Your task to perform on an android device: change the clock style Image 0: 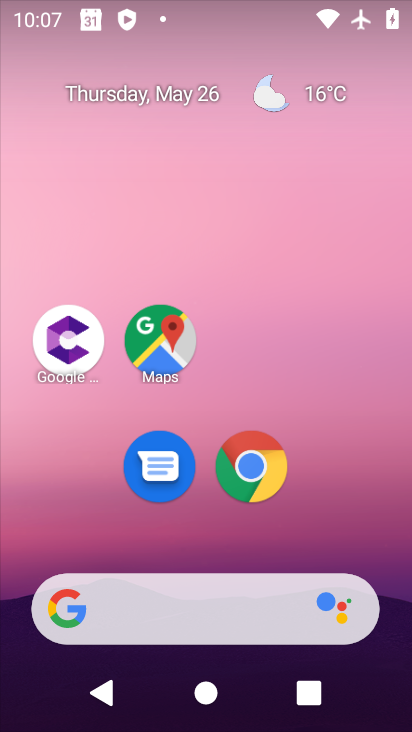
Step 0: drag from (349, 496) to (267, 192)
Your task to perform on an android device: change the clock style Image 1: 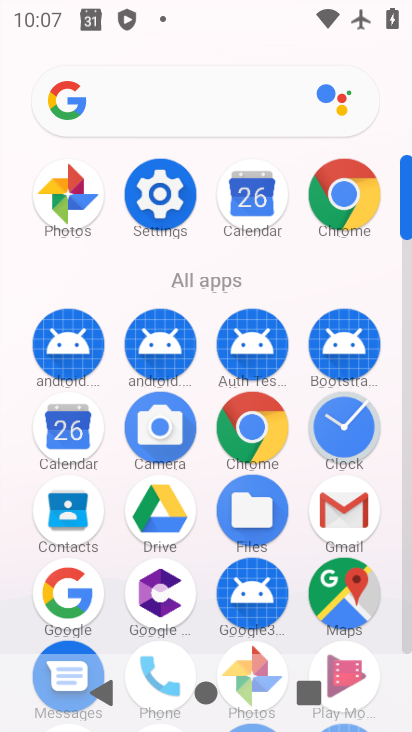
Step 1: click (335, 439)
Your task to perform on an android device: change the clock style Image 2: 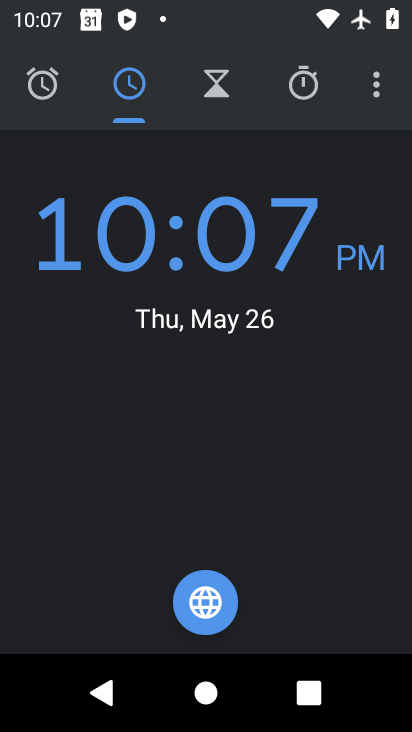
Step 2: click (379, 85)
Your task to perform on an android device: change the clock style Image 3: 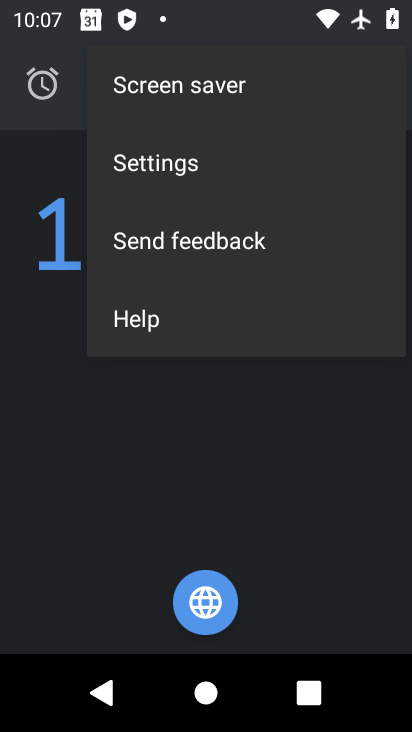
Step 3: click (188, 155)
Your task to perform on an android device: change the clock style Image 4: 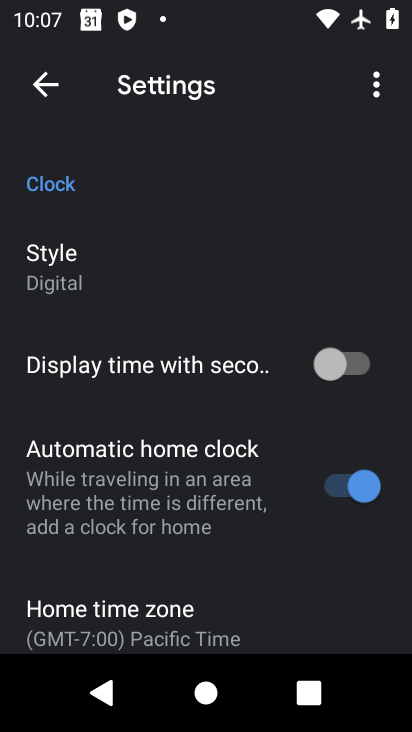
Step 4: click (59, 258)
Your task to perform on an android device: change the clock style Image 5: 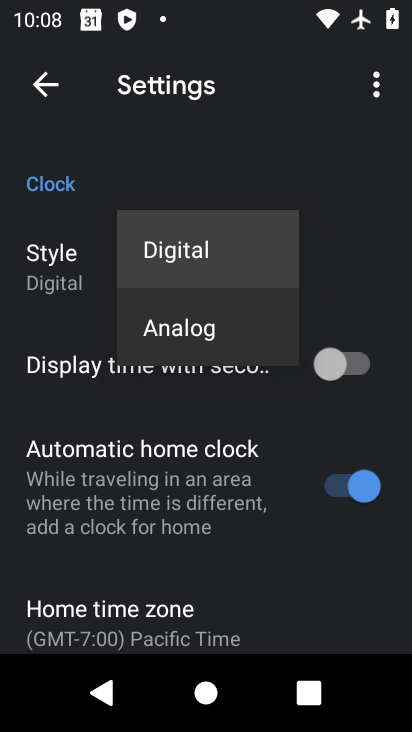
Step 5: click (161, 329)
Your task to perform on an android device: change the clock style Image 6: 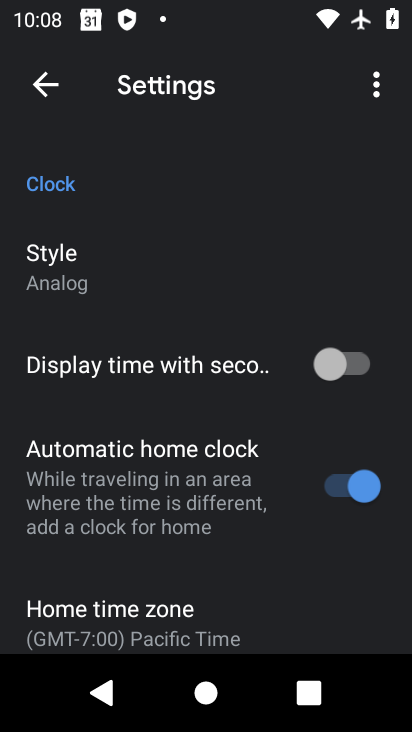
Step 6: task complete